Your task to perform on an android device: turn off picture-in-picture Image 0: 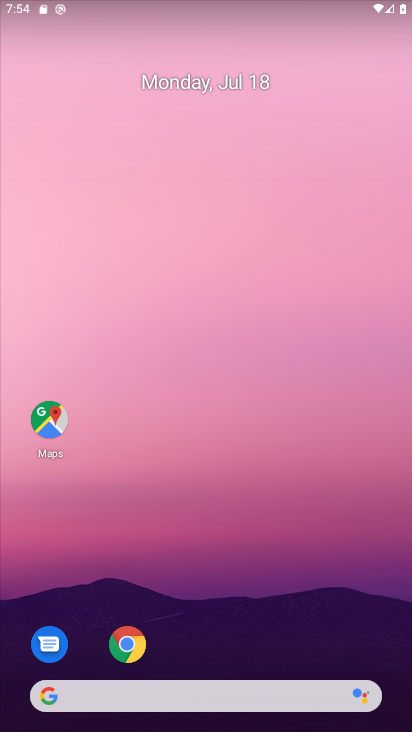
Step 0: click (140, 658)
Your task to perform on an android device: turn off picture-in-picture Image 1: 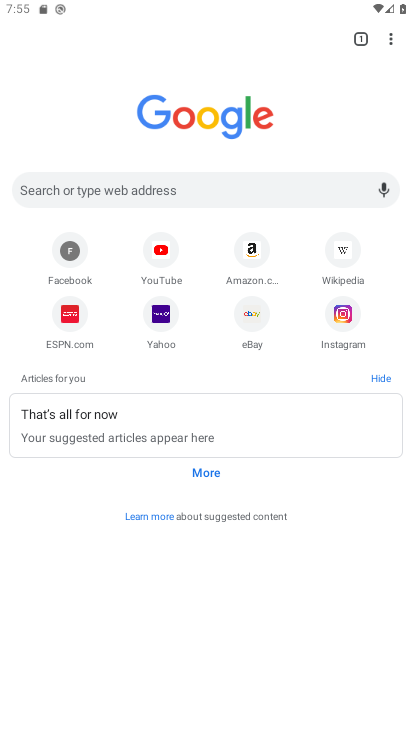
Step 1: click (391, 37)
Your task to perform on an android device: turn off picture-in-picture Image 2: 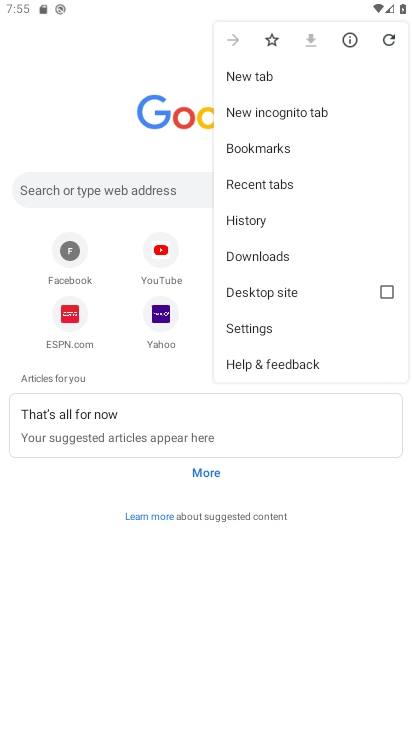
Step 2: click (276, 334)
Your task to perform on an android device: turn off picture-in-picture Image 3: 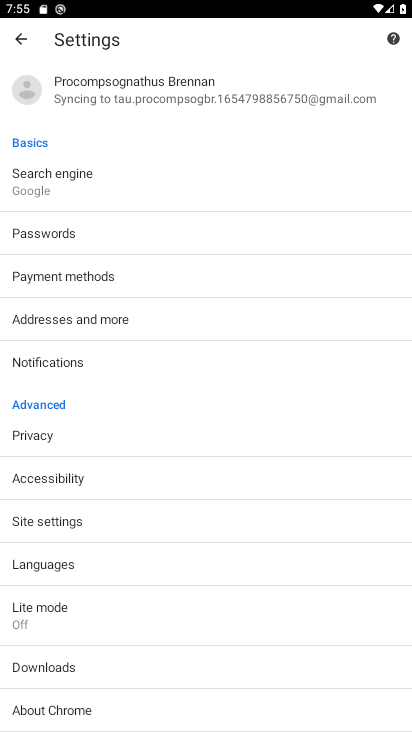
Step 3: click (126, 508)
Your task to perform on an android device: turn off picture-in-picture Image 4: 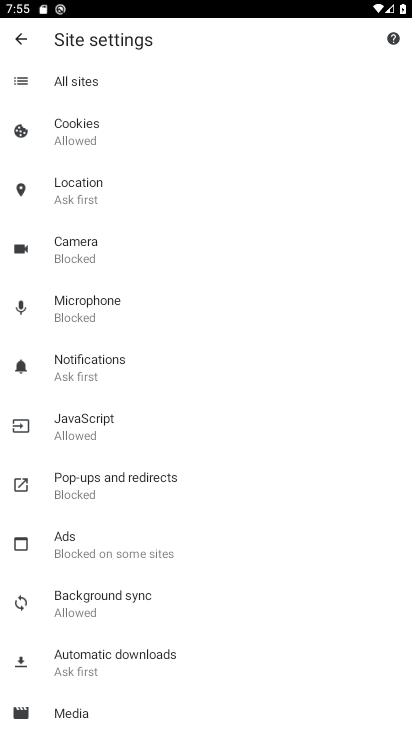
Step 4: task complete